Your task to perform on an android device: read, delete, or share a saved page in the chrome app Image 0: 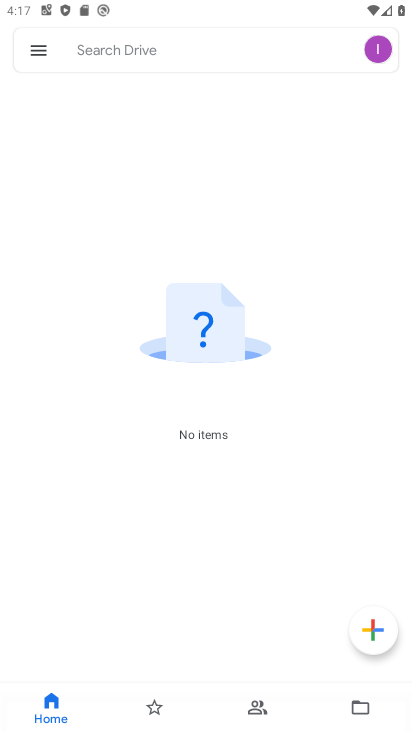
Step 0: drag from (206, 664) to (304, 1)
Your task to perform on an android device: read, delete, or share a saved page in the chrome app Image 1: 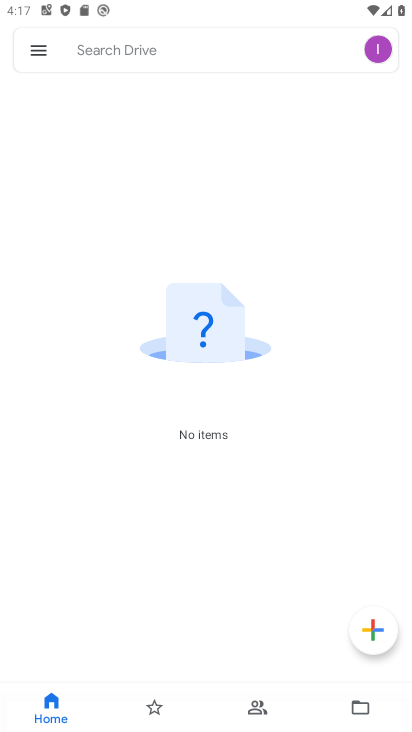
Step 1: press home button
Your task to perform on an android device: read, delete, or share a saved page in the chrome app Image 2: 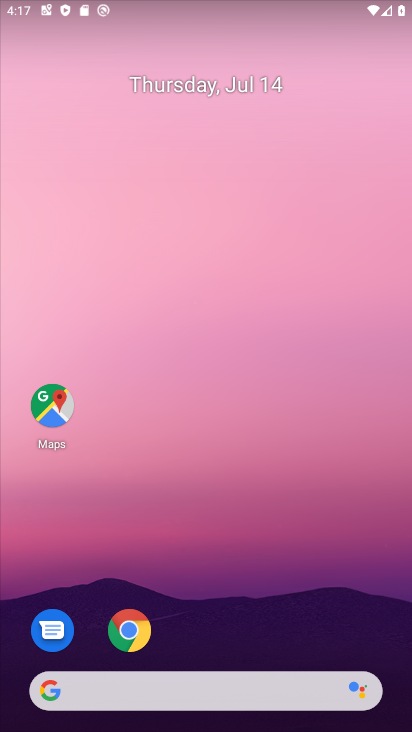
Step 2: drag from (316, 709) to (374, 48)
Your task to perform on an android device: read, delete, or share a saved page in the chrome app Image 3: 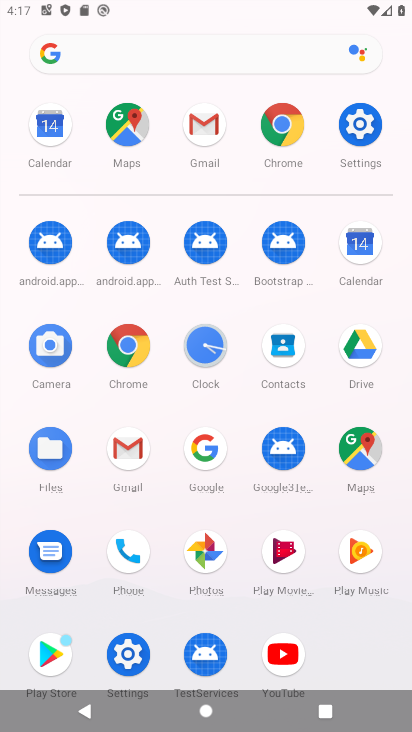
Step 3: click (135, 348)
Your task to perform on an android device: read, delete, or share a saved page in the chrome app Image 4: 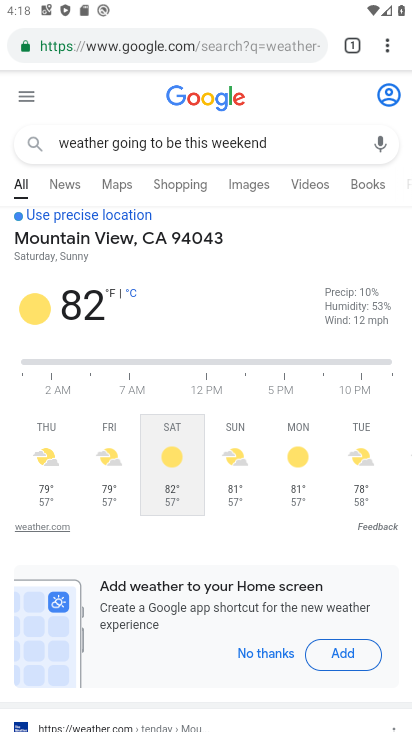
Step 4: task complete